Your task to perform on an android device: Open the map Image 0: 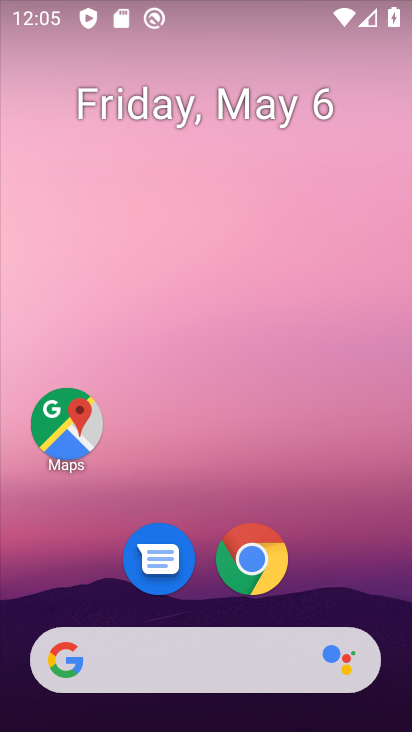
Step 0: drag from (355, 577) to (383, 196)
Your task to perform on an android device: Open the map Image 1: 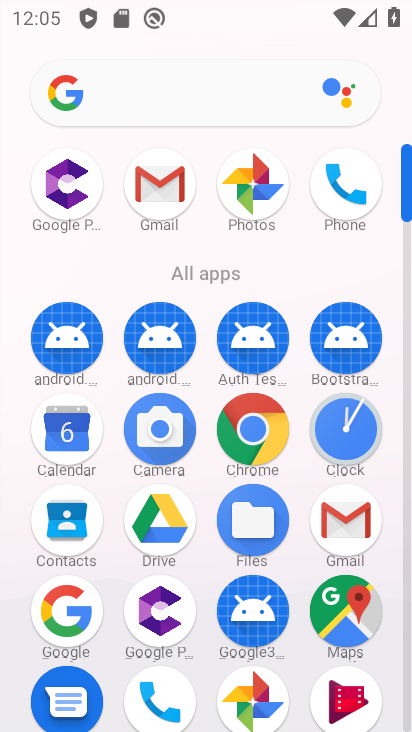
Step 1: click (327, 607)
Your task to perform on an android device: Open the map Image 2: 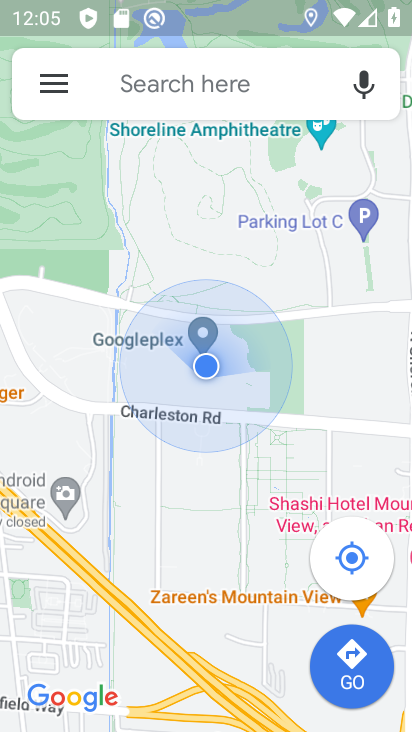
Step 2: task complete